Your task to perform on an android device: turn on bluetooth scan Image 0: 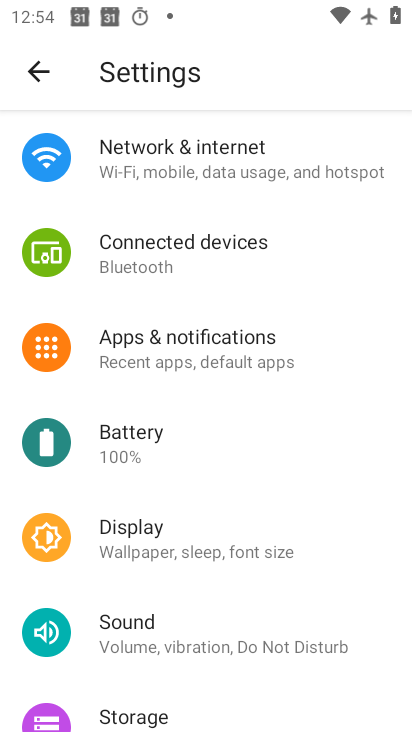
Step 0: drag from (236, 618) to (264, 306)
Your task to perform on an android device: turn on bluetooth scan Image 1: 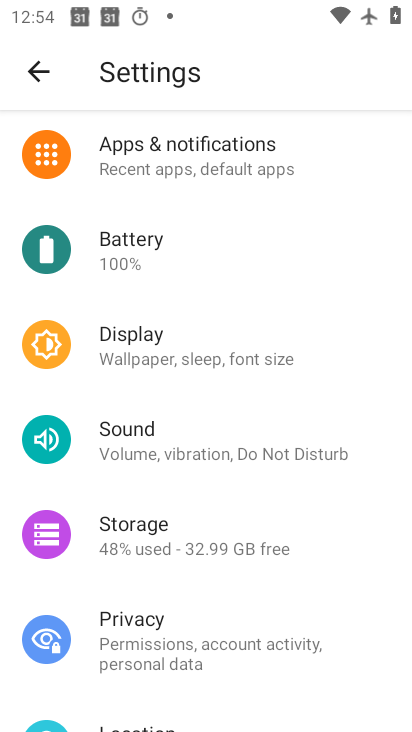
Step 1: drag from (218, 635) to (251, 427)
Your task to perform on an android device: turn on bluetooth scan Image 2: 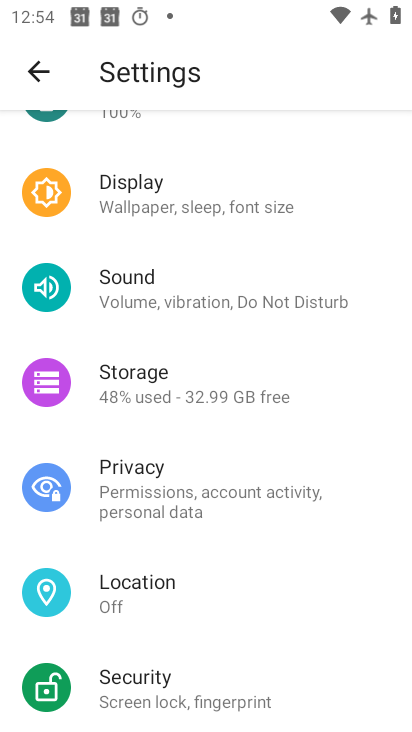
Step 2: click (208, 574)
Your task to perform on an android device: turn on bluetooth scan Image 3: 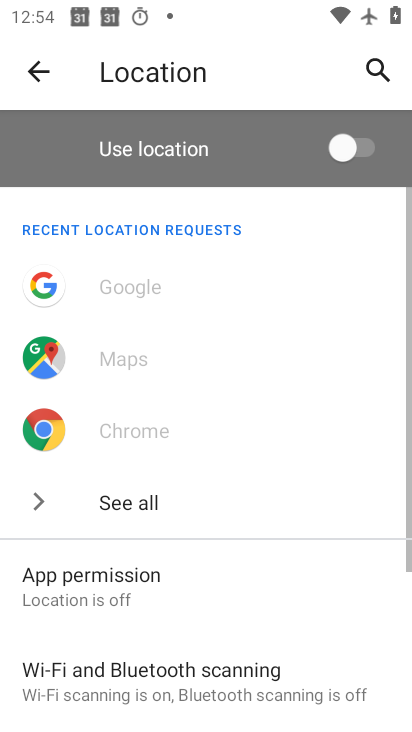
Step 3: drag from (207, 575) to (252, 321)
Your task to perform on an android device: turn on bluetooth scan Image 4: 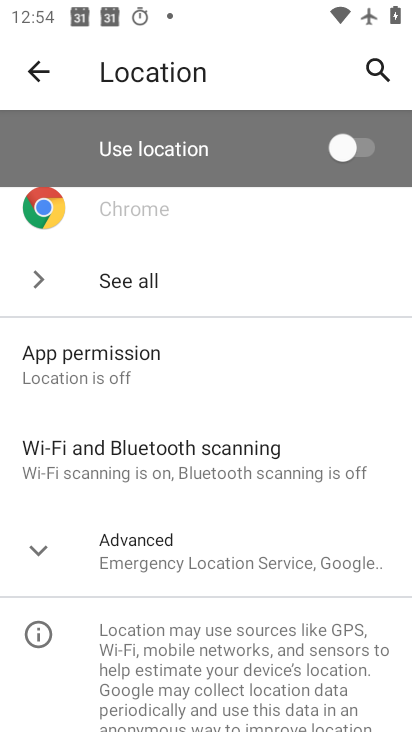
Step 4: click (234, 473)
Your task to perform on an android device: turn on bluetooth scan Image 5: 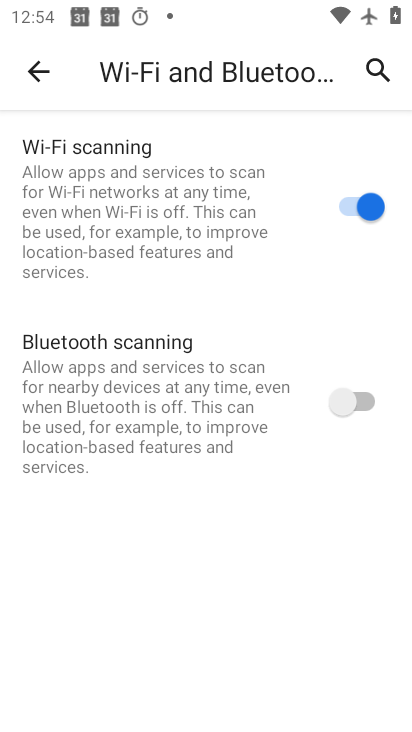
Step 5: click (376, 395)
Your task to perform on an android device: turn on bluetooth scan Image 6: 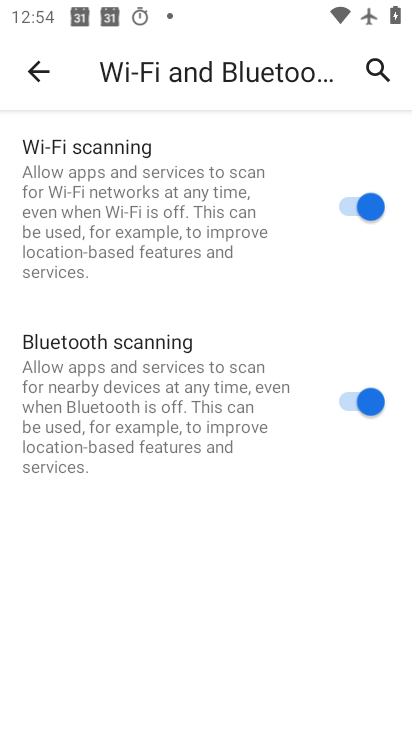
Step 6: task complete